Your task to perform on an android device: install app "Spotify: Music and Podcasts" Image 0: 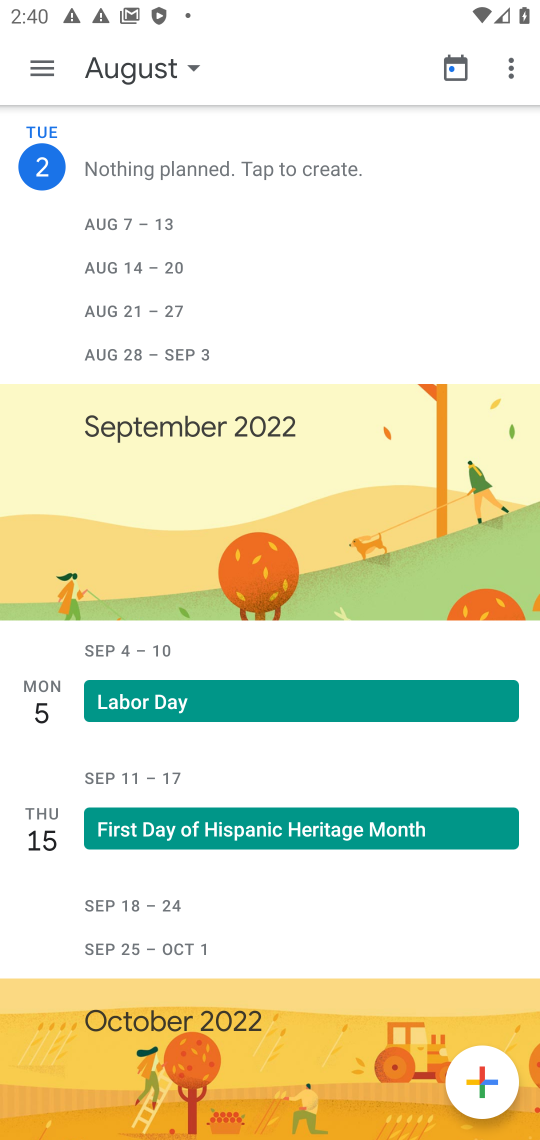
Step 0: press home button
Your task to perform on an android device: install app "Spotify: Music and Podcasts" Image 1: 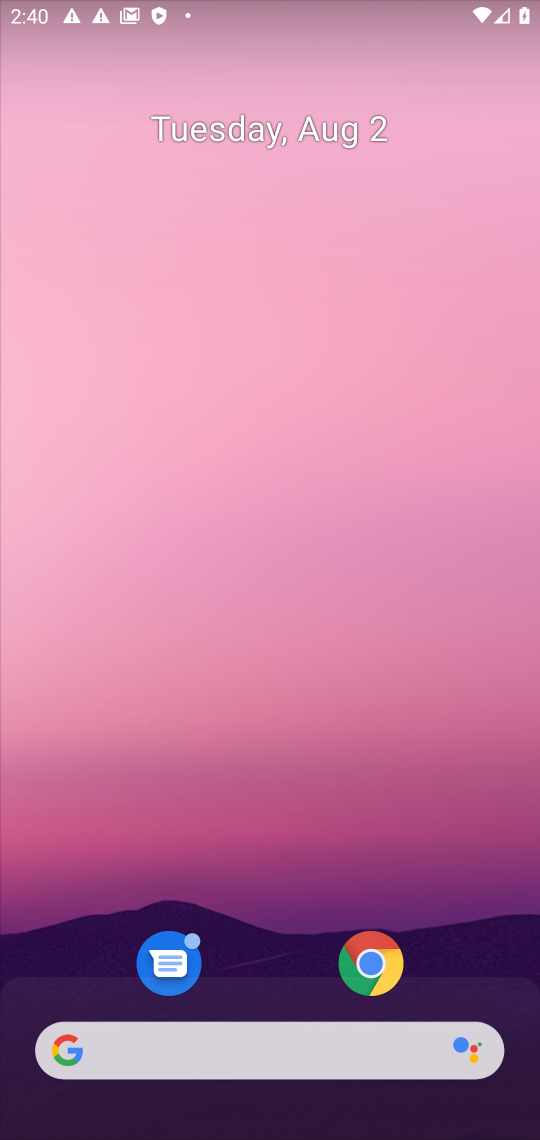
Step 1: drag from (314, 646) to (394, 0)
Your task to perform on an android device: install app "Spotify: Music and Podcasts" Image 2: 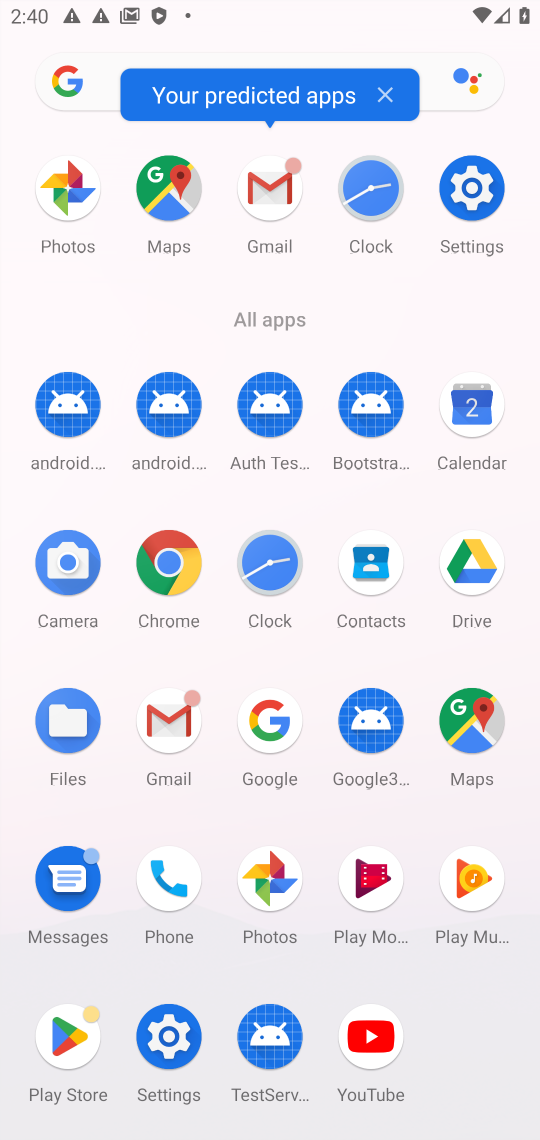
Step 2: click (79, 1017)
Your task to perform on an android device: install app "Spotify: Music and Podcasts" Image 3: 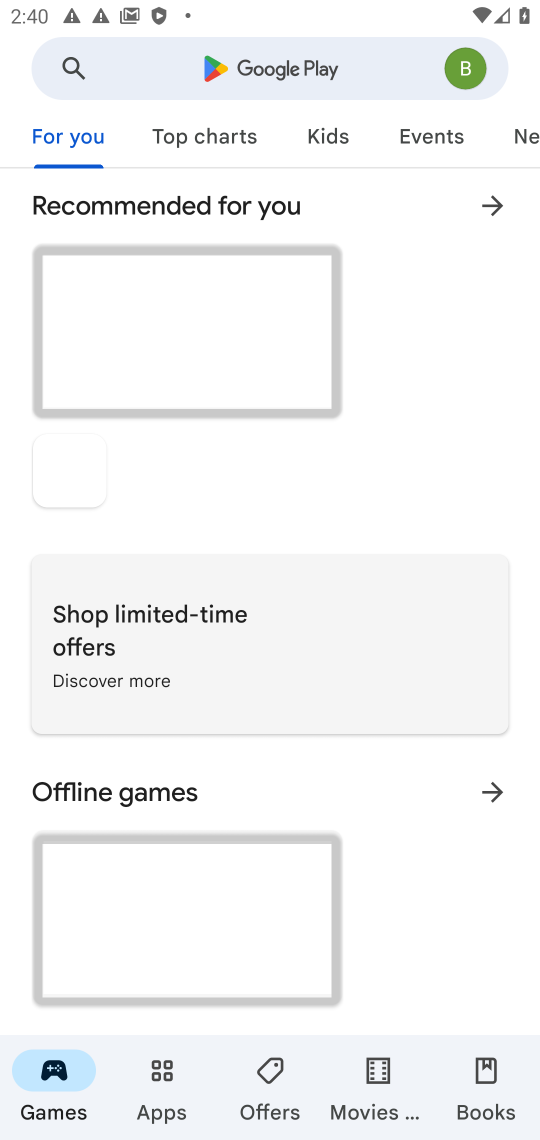
Step 3: click (255, 66)
Your task to perform on an android device: install app "Spotify: Music and Podcasts" Image 4: 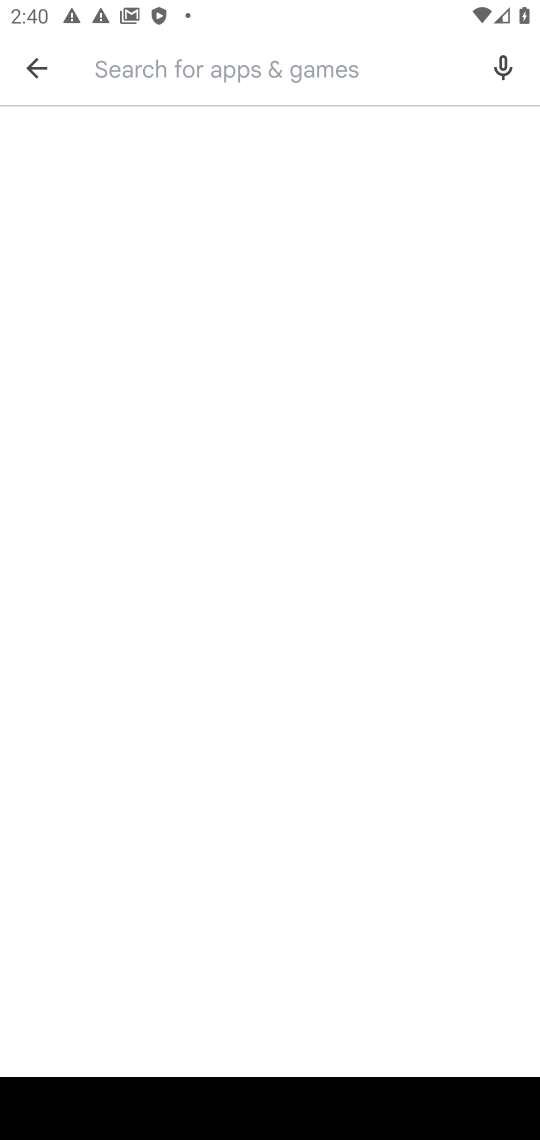
Step 4: type "Spotify: Music and Podcasts"
Your task to perform on an android device: install app "Spotify: Music and Podcasts" Image 5: 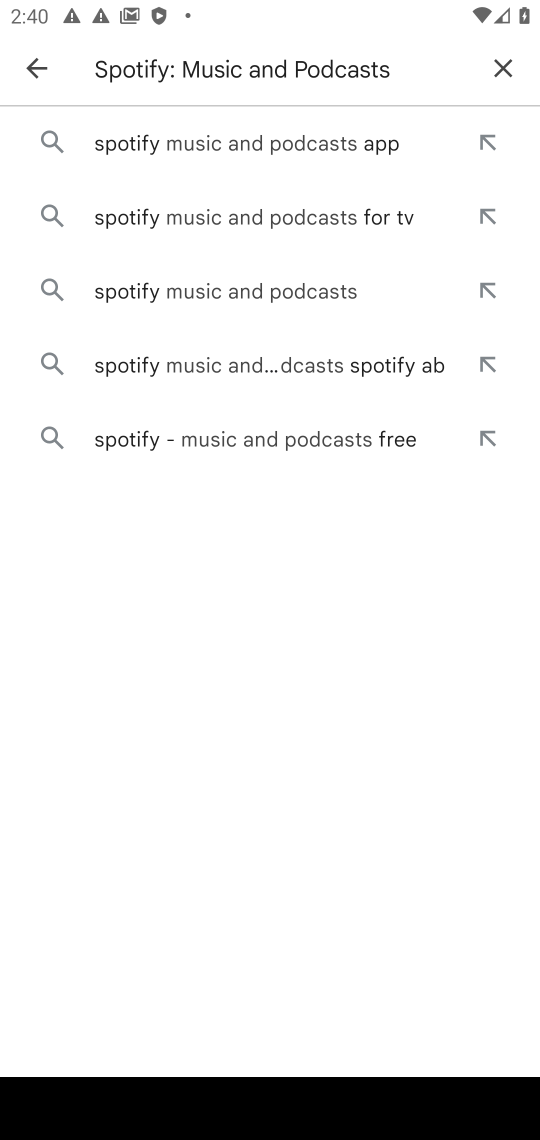
Step 5: click (138, 150)
Your task to perform on an android device: install app "Spotify: Music and Podcasts" Image 6: 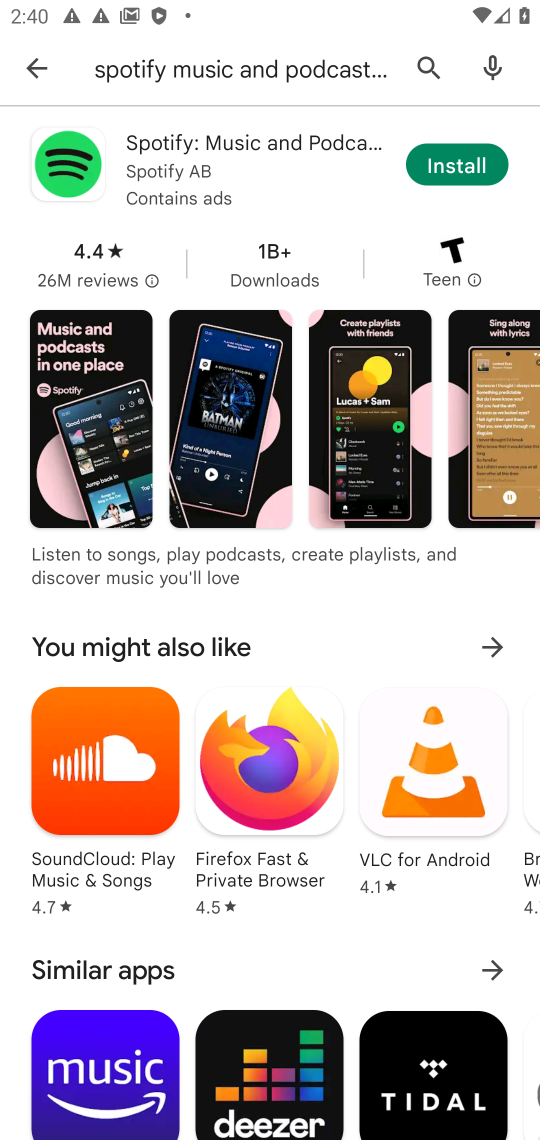
Step 6: click (480, 173)
Your task to perform on an android device: install app "Spotify: Music and Podcasts" Image 7: 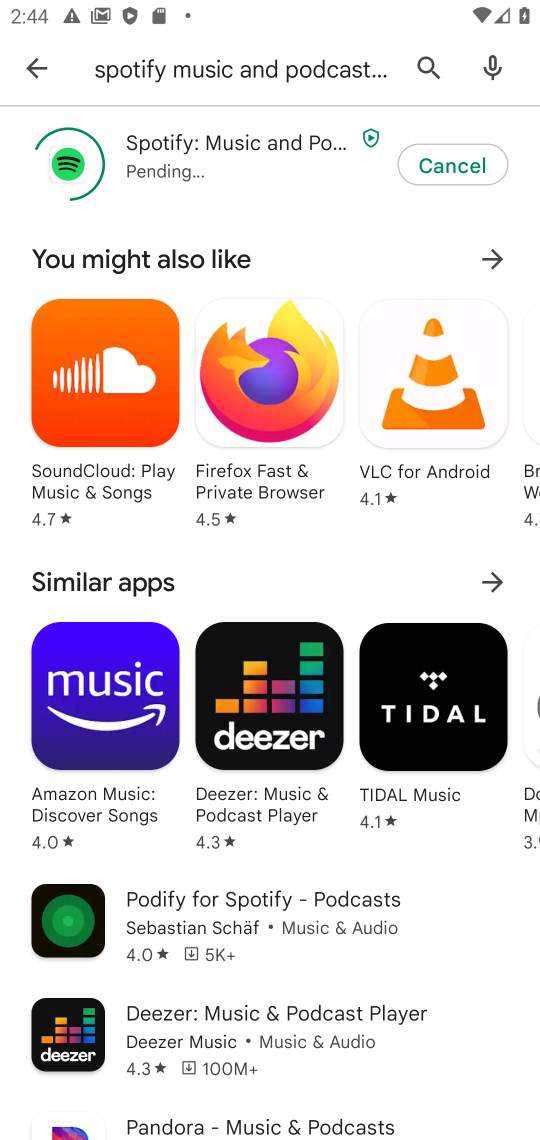
Step 7: task complete